Your task to perform on an android device: Go to location settings Image 0: 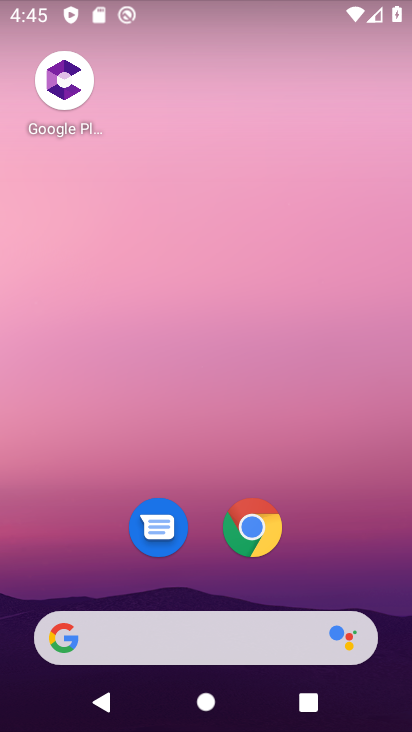
Step 0: drag from (326, 593) to (306, 5)
Your task to perform on an android device: Go to location settings Image 1: 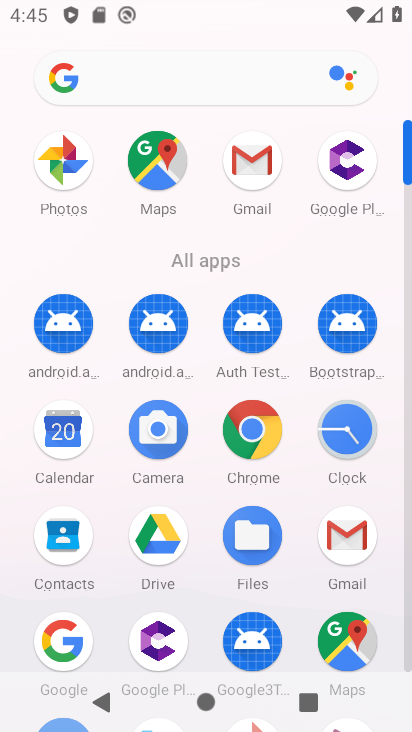
Step 1: drag from (294, 607) to (297, 186)
Your task to perform on an android device: Go to location settings Image 2: 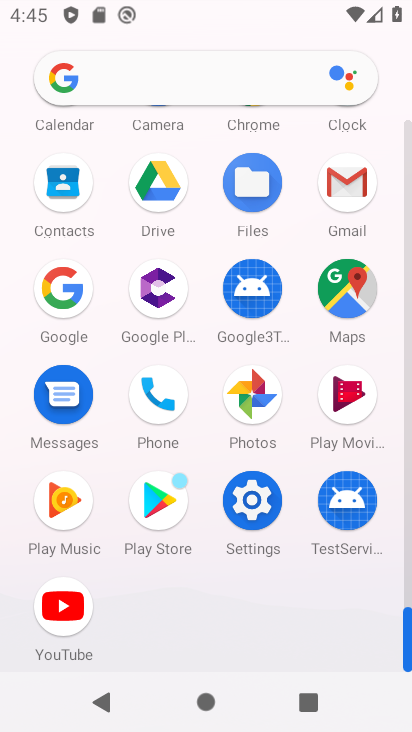
Step 2: click (251, 507)
Your task to perform on an android device: Go to location settings Image 3: 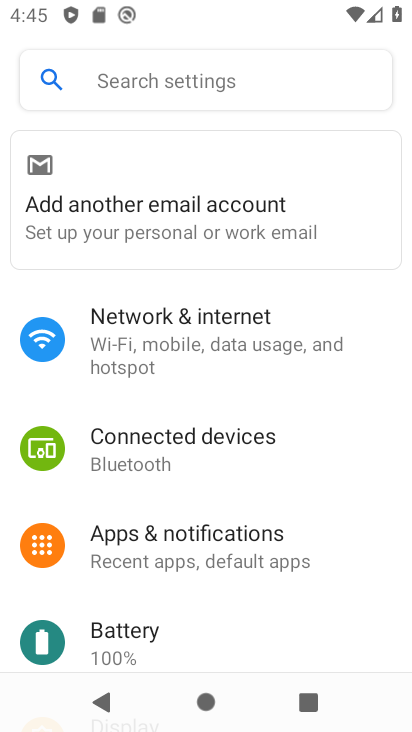
Step 3: drag from (219, 613) to (275, 58)
Your task to perform on an android device: Go to location settings Image 4: 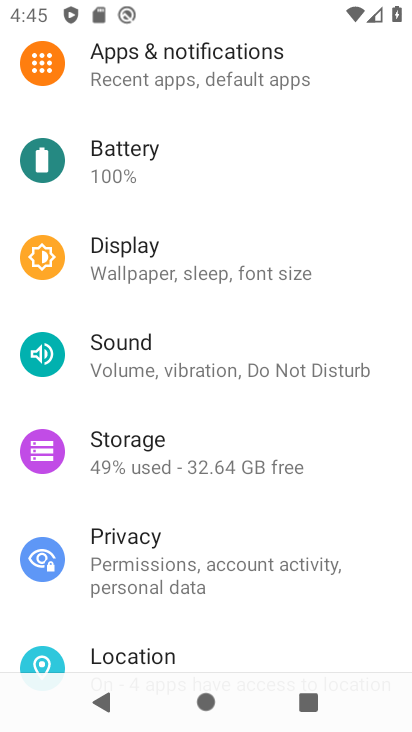
Step 4: click (189, 652)
Your task to perform on an android device: Go to location settings Image 5: 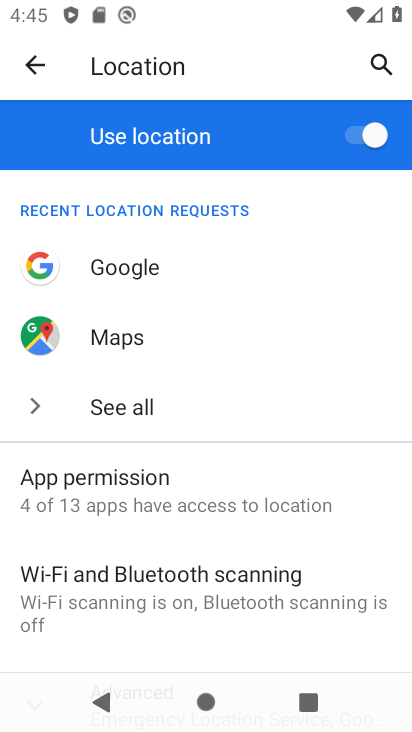
Step 5: drag from (193, 625) to (229, 204)
Your task to perform on an android device: Go to location settings Image 6: 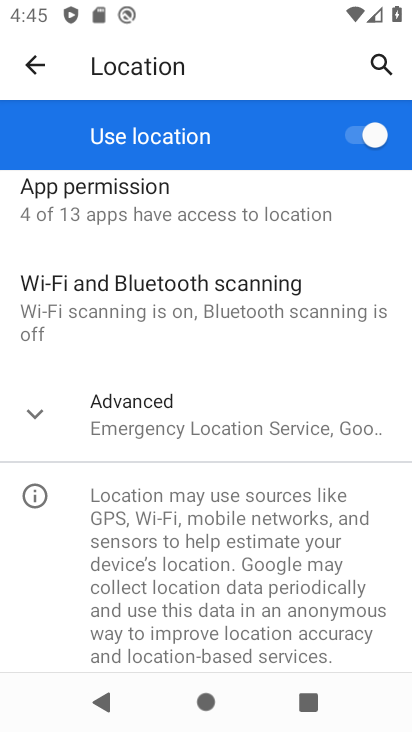
Step 6: click (183, 426)
Your task to perform on an android device: Go to location settings Image 7: 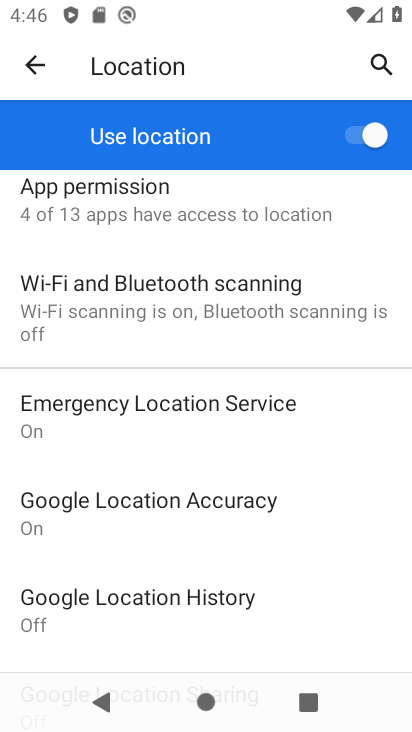
Step 7: task complete